Your task to perform on an android device: open chrome and create a bookmark for the current page Image 0: 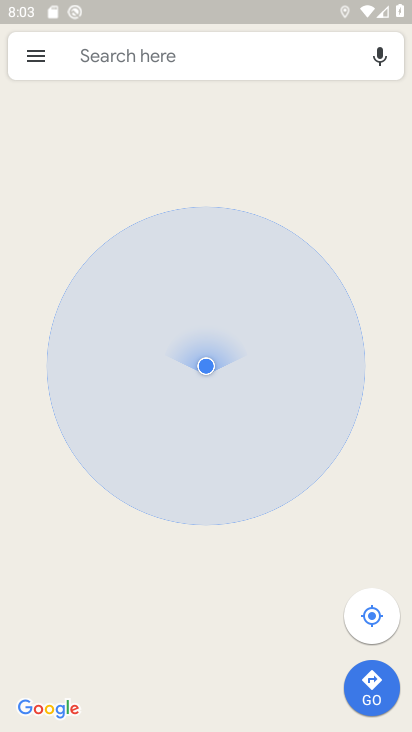
Step 0: press back button
Your task to perform on an android device: open chrome and create a bookmark for the current page Image 1: 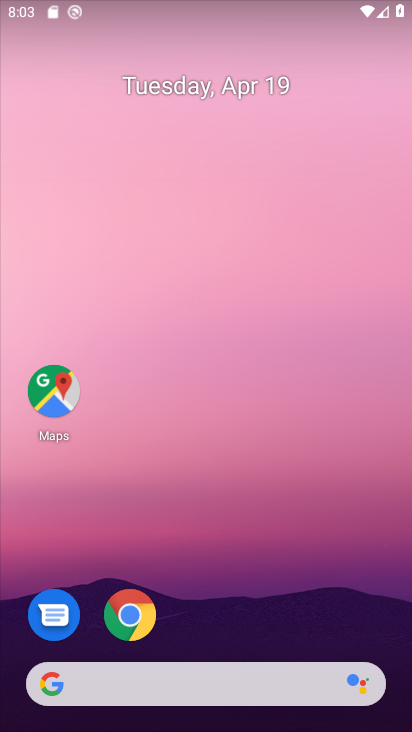
Step 1: drag from (245, 443) to (163, 13)
Your task to perform on an android device: open chrome and create a bookmark for the current page Image 2: 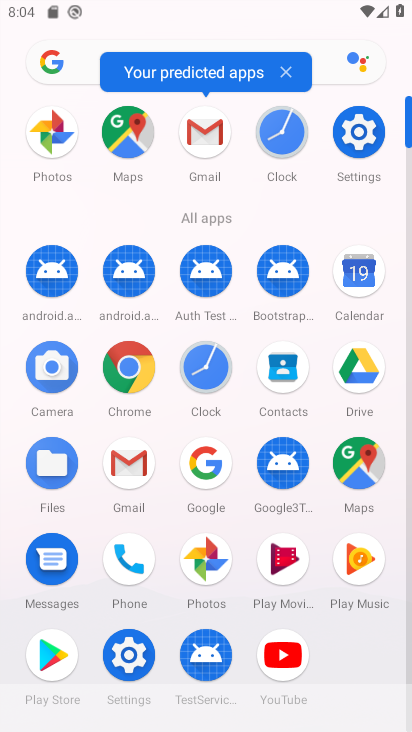
Step 2: click (129, 359)
Your task to perform on an android device: open chrome and create a bookmark for the current page Image 3: 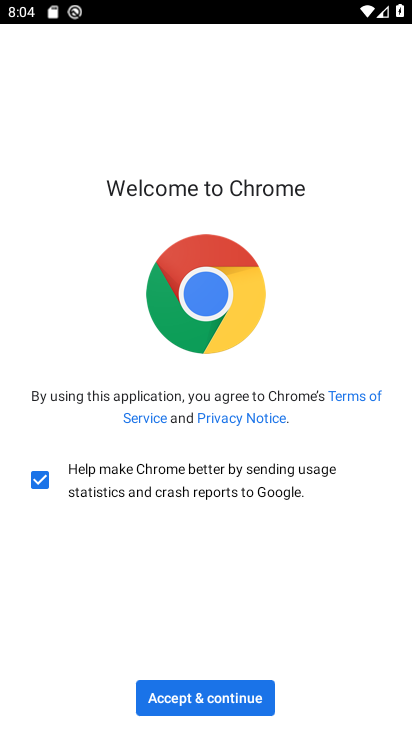
Step 3: click (208, 690)
Your task to perform on an android device: open chrome and create a bookmark for the current page Image 4: 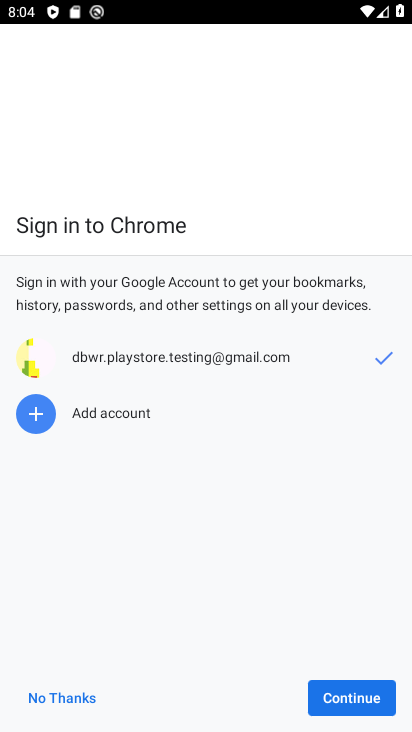
Step 4: click (358, 685)
Your task to perform on an android device: open chrome and create a bookmark for the current page Image 5: 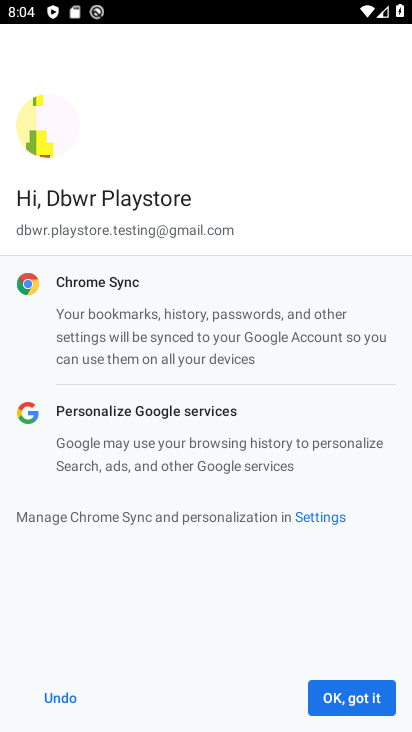
Step 5: click (358, 693)
Your task to perform on an android device: open chrome and create a bookmark for the current page Image 6: 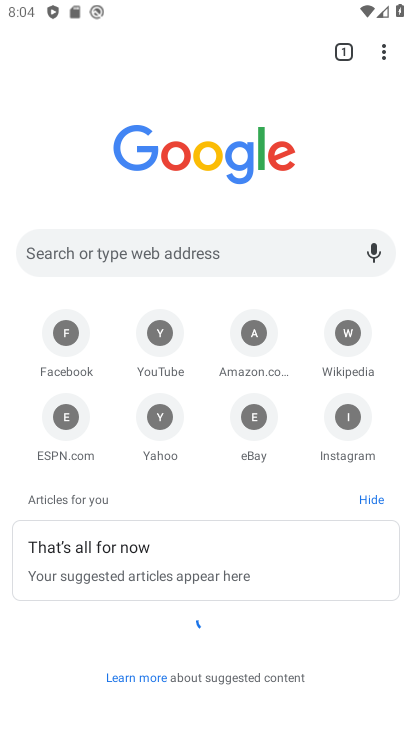
Step 6: task complete